Your task to perform on an android device: Open maps Image 0: 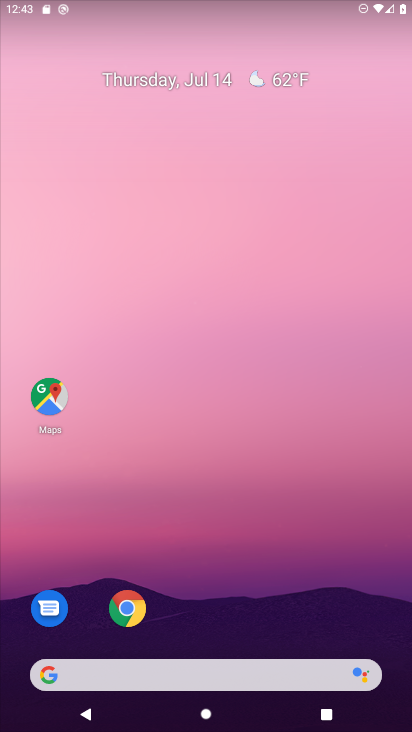
Step 0: drag from (251, 721) to (245, 597)
Your task to perform on an android device: Open maps Image 1: 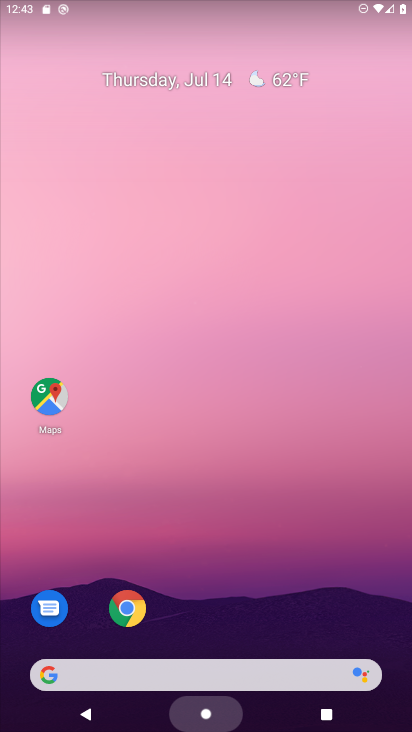
Step 1: drag from (245, 200) to (247, 50)
Your task to perform on an android device: Open maps Image 2: 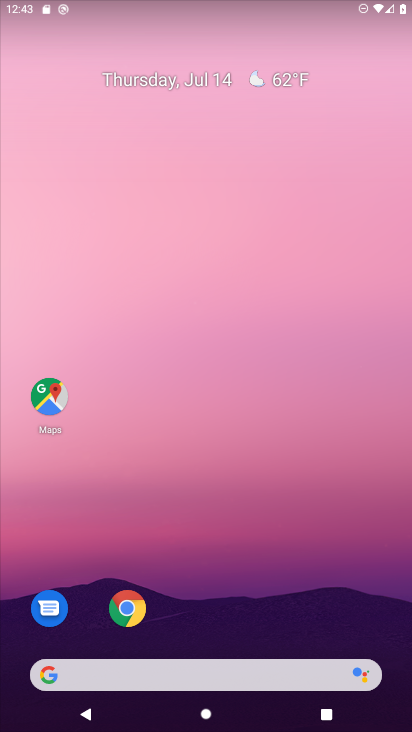
Step 2: drag from (269, 700) to (222, 59)
Your task to perform on an android device: Open maps Image 3: 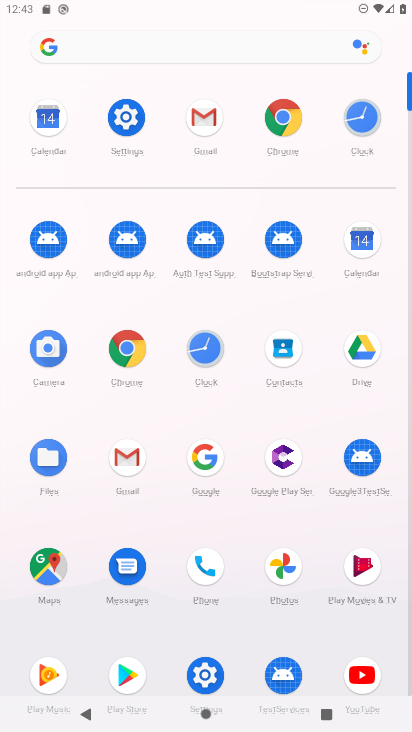
Step 3: click (50, 564)
Your task to perform on an android device: Open maps Image 4: 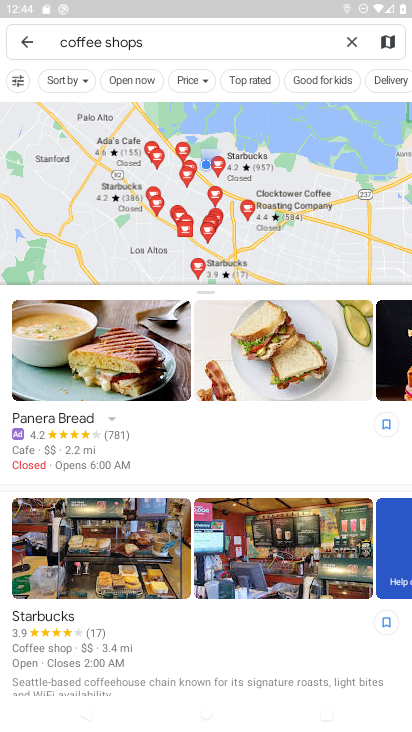
Step 4: task complete